Your task to perform on an android device: open a new tab in the chrome app Image 0: 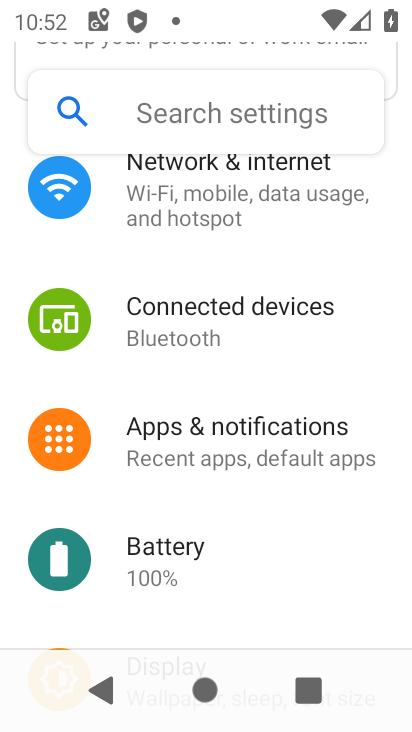
Step 0: press home button
Your task to perform on an android device: open a new tab in the chrome app Image 1: 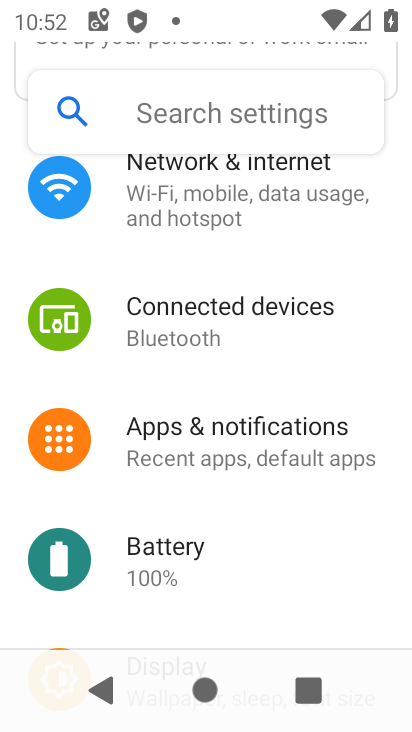
Step 1: press home button
Your task to perform on an android device: open a new tab in the chrome app Image 2: 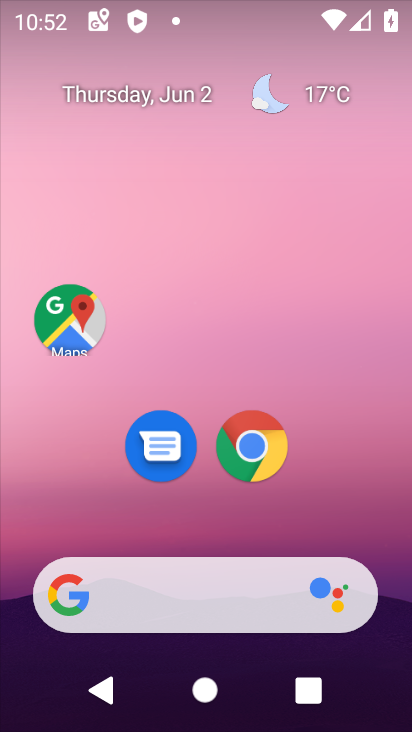
Step 2: click (255, 445)
Your task to perform on an android device: open a new tab in the chrome app Image 3: 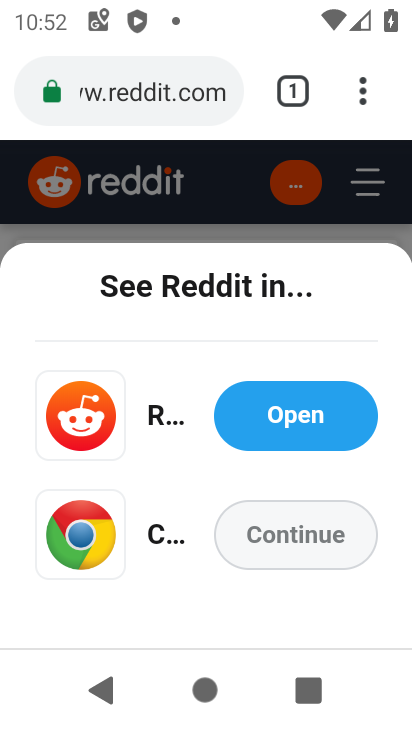
Step 3: task complete